Your task to perform on an android device: snooze an email in the gmail app Image 0: 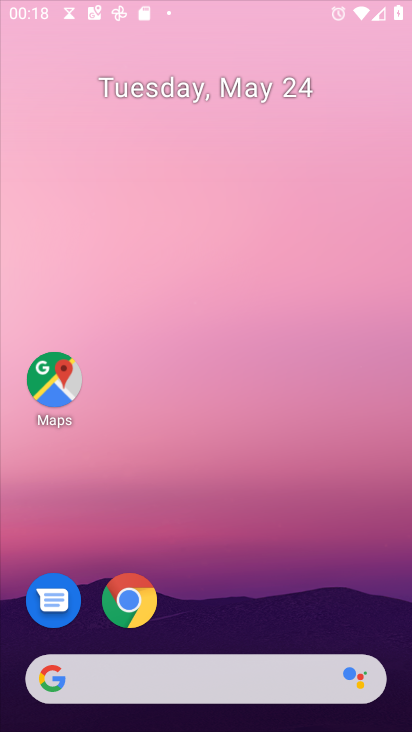
Step 0: click (196, 57)
Your task to perform on an android device: snooze an email in the gmail app Image 1: 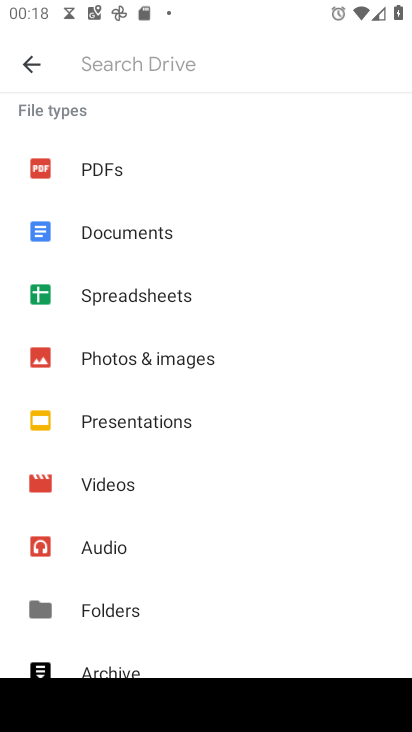
Step 1: press home button
Your task to perform on an android device: snooze an email in the gmail app Image 2: 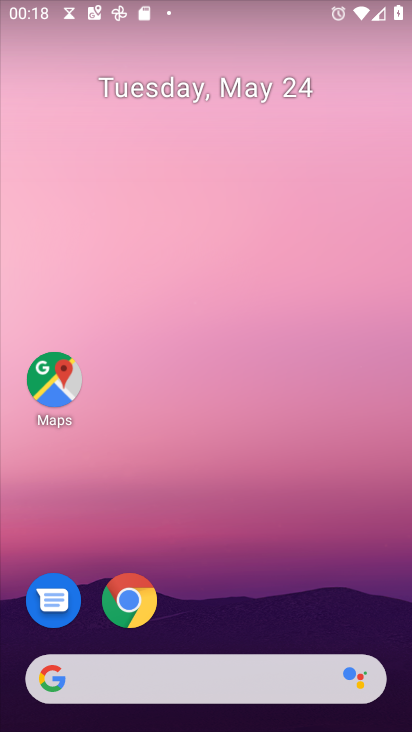
Step 2: drag from (229, 727) to (226, 49)
Your task to perform on an android device: snooze an email in the gmail app Image 3: 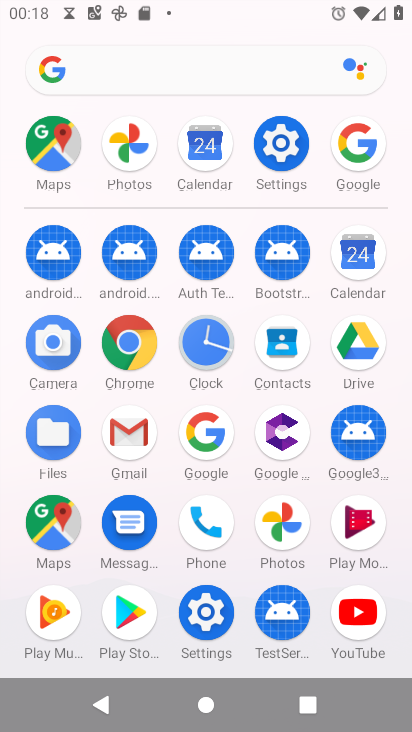
Step 3: click (134, 431)
Your task to perform on an android device: snooze an email in the gmail app Image 4: 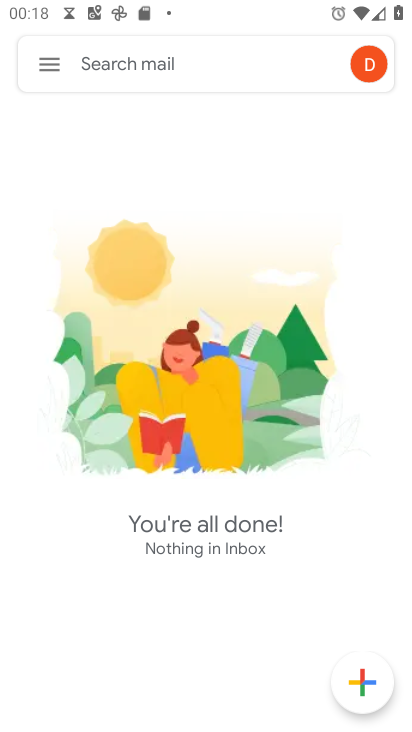
Step 4: click (41, 62)
Your task to perform on an android device: snooze an email in the gmail app Image 5: 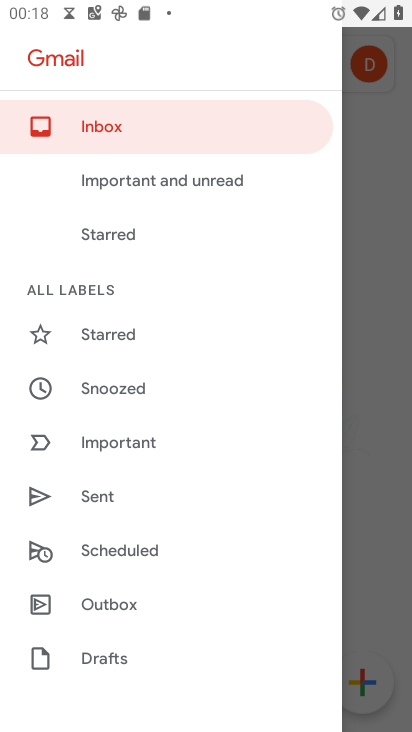
Step 5: click (105, 387)
Your task to perform on an android device: snooze an email in the gmail app Image 6: 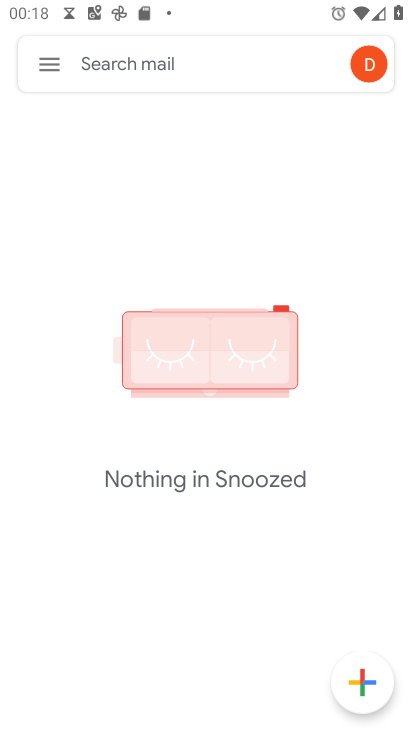
Step 6: task complete